Your task to perform on an android device: open chrome and create a bookmark for the current page Image 0: 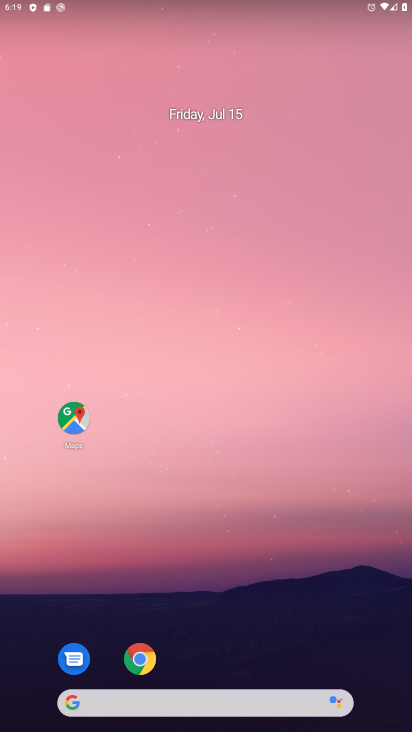
Step 0: click (142, 660)
Your task to perform on an android device: open chrome and create a bookmark for the current page Image 1: 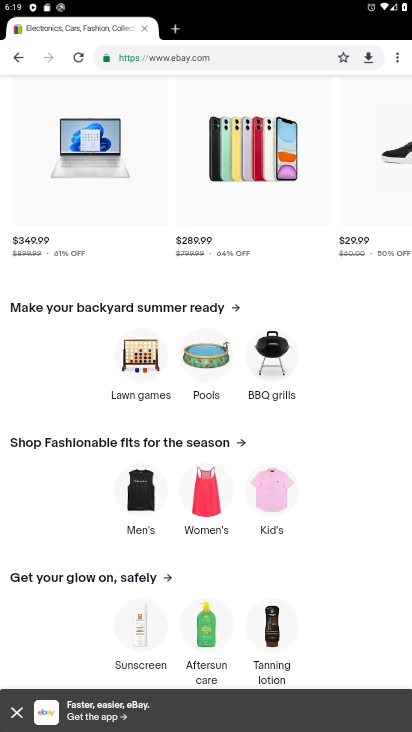
Step 1: click (342, 55)
Your task to perform on an android device: open chrome and create a bookmark for the current page Image 2: 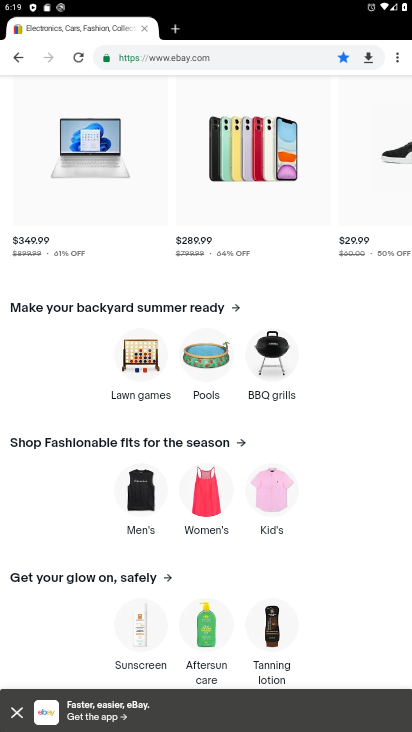
Step 2: task complete